Your task to perform on an android device: clear all cookies in the chrome app Image 0: 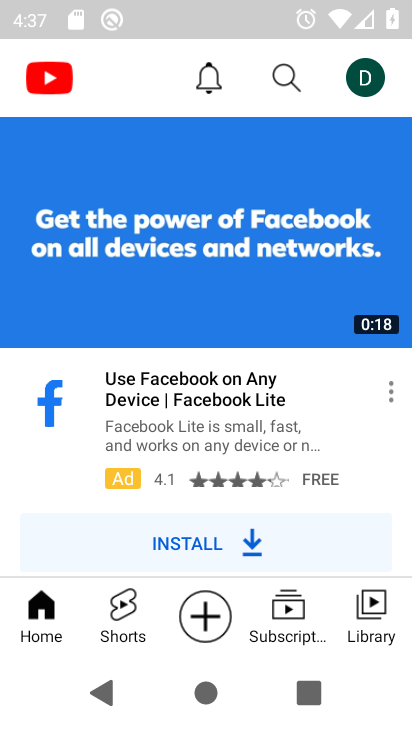
Step 0: click (293, 601)
Your task to perform on an android device: clear all cookies in the chrome app Image 1: 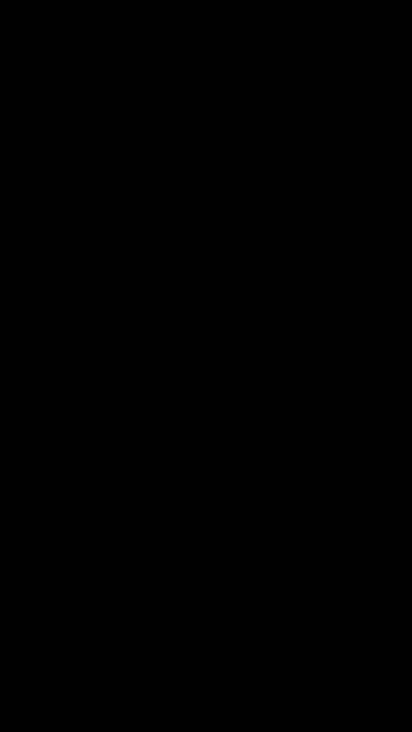
Step 1: task complete